Your task to perform on an android device: turn on data saver in the chrome app Image 0: 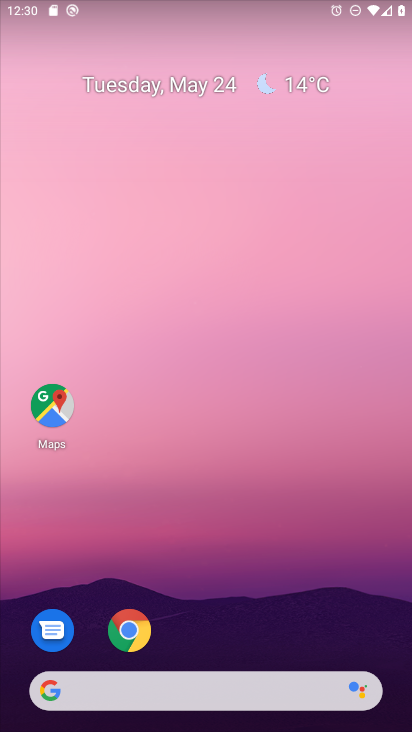
Step 0: drag from (292, 612) to (316, 177)
Your task to perform on an android device: turn on data saver in the chrome app Image 1: 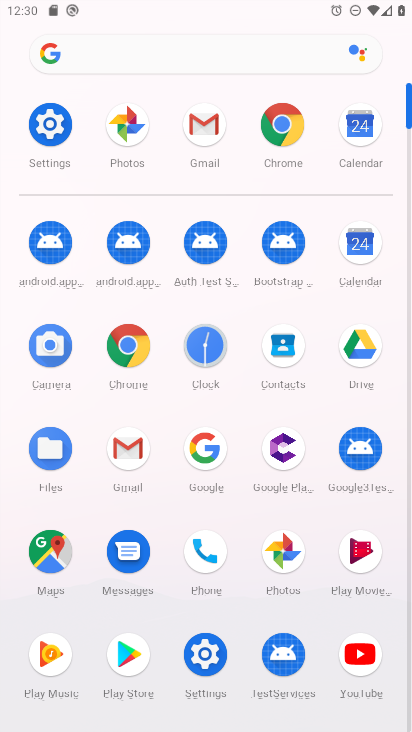
Step 1: click (119, 366)
Your task to perform on an android device: turn on data saver in the chrome app Image 2: 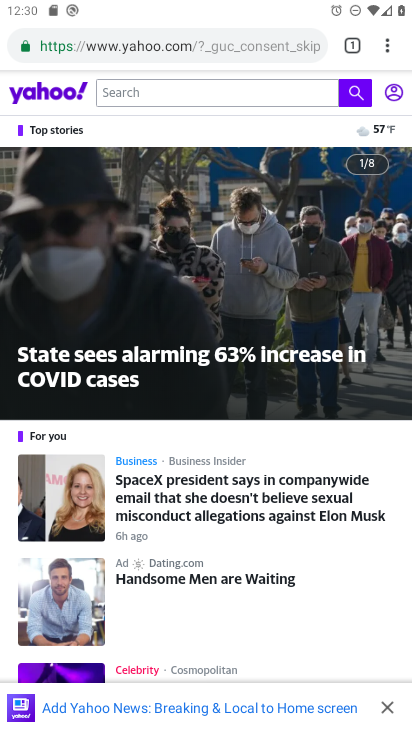
Step 2: drag from (376, 42) to (217, 542)
Your task to perform on an android device: turn on data saver in the chrome app Image 3: 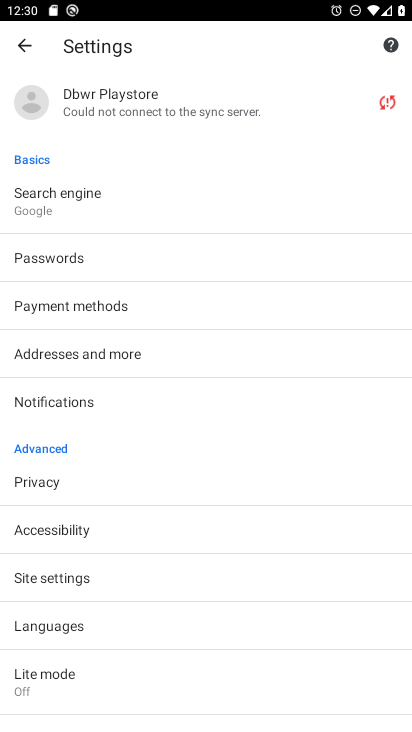
Step 3: drag from (194, 646) to (230, 247)
Your task to perform on an android device: turn on data saver in the chrome app Image 4: 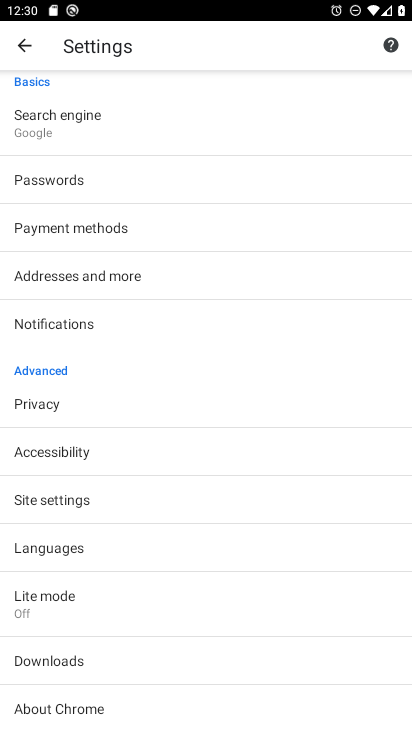
Step 4: drag from (184, 682) to (222, 305)
Your task to perform on an android device: turn on data saver in the chrome app Image 5: 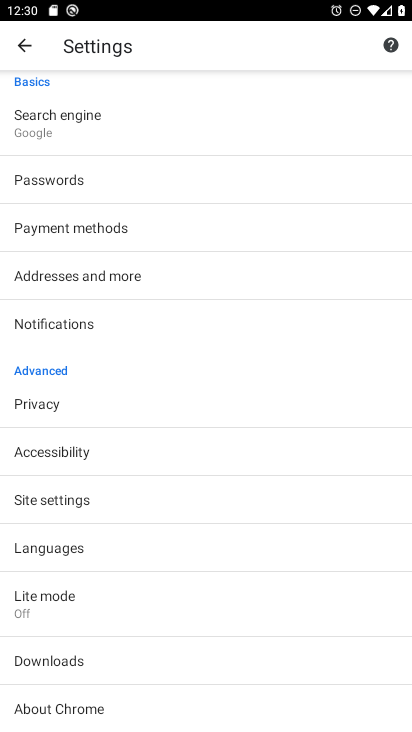
Step 5: click (48, 603)
Your task to perform on an android device: turn on data saver in the chrome app Image 6: 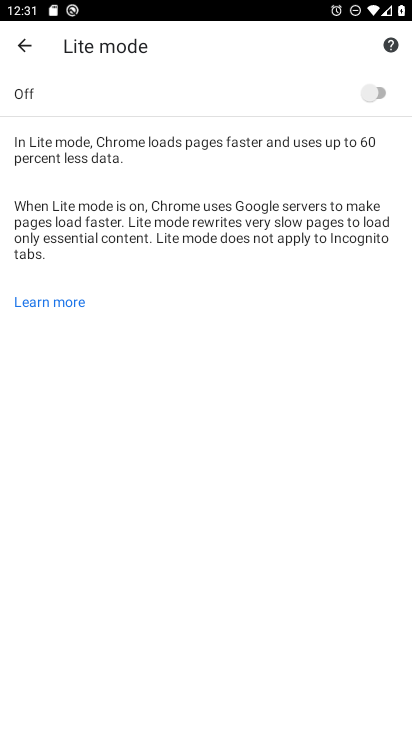
Step 6: click (385, 90)
Your task to perform on an android device: turn on data saver in the chrome app Image 7: 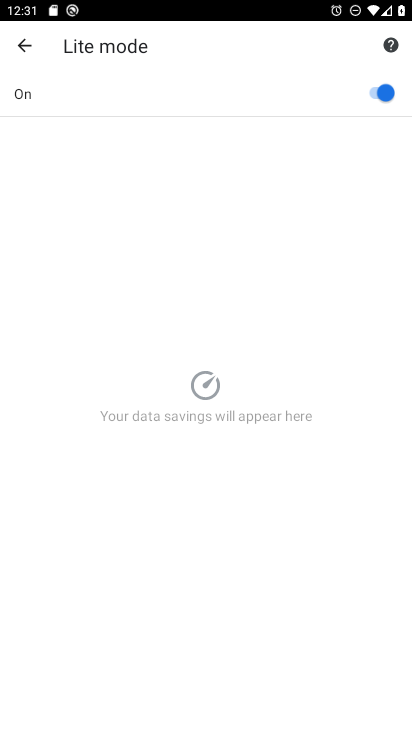
Step 7: task complete